Your task to perform on an android device: toggle location history Image 0: 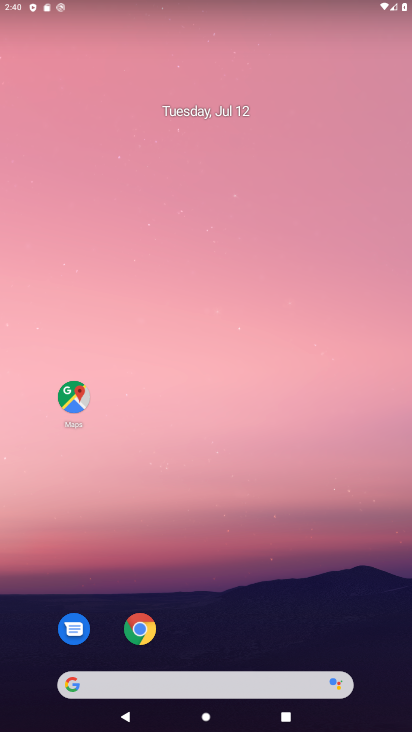
Step 0: drag from (190, 631) to (212, 97)
Your task to perform on an android device: toggle location history Image 1: 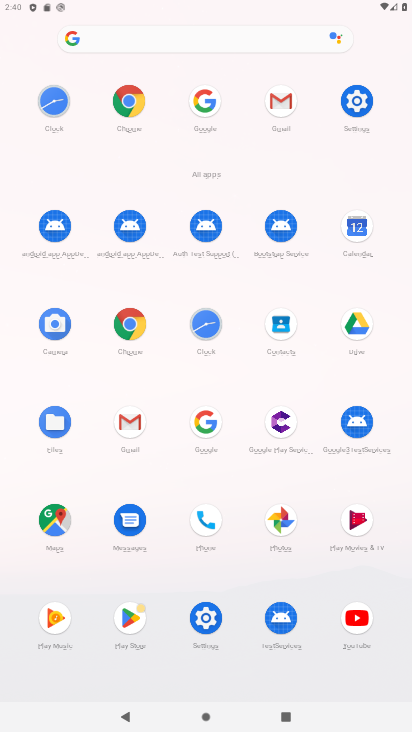
Step 1: click (359, 98)
Your task to perform on an android device: toggle location history Image 2: 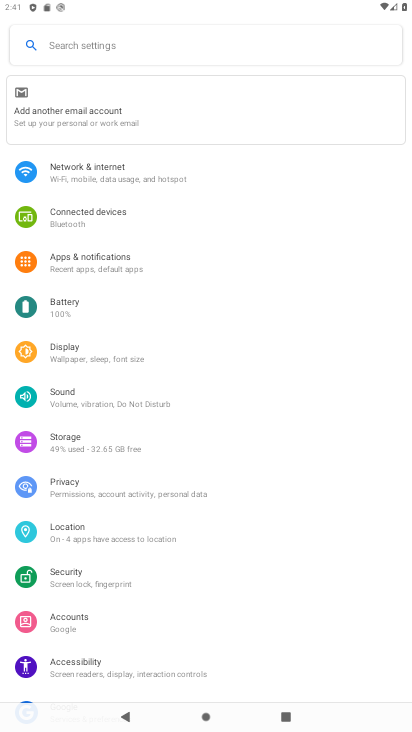
Step 2: click (108, 529)
Your task to perform on an android device: toggle location history Image 3: 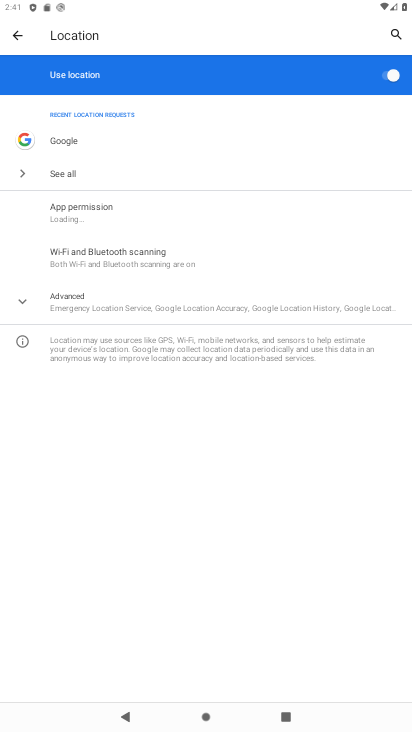
Step 3: click (87, 308)
Your task to perform on an android device: toggle location history Image 4: 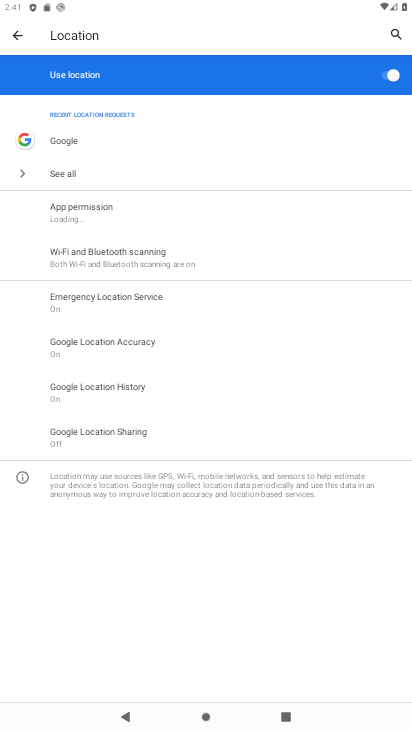
Step 4: click (126, 386)
Your task to perform on an android device: toggle location history Image 5: 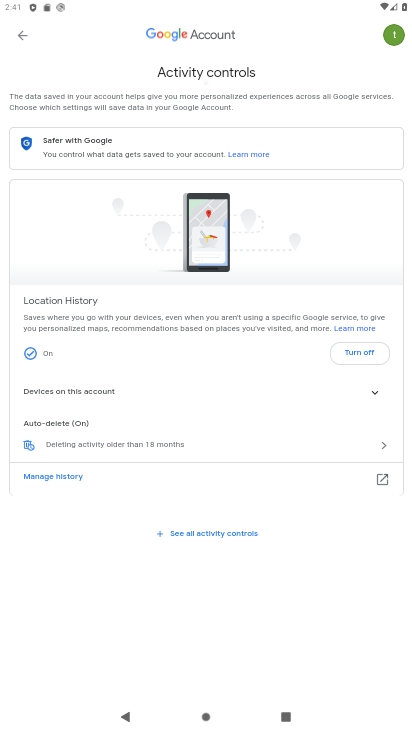
Step 5: click (369, 355)
Your task to perform on an android device: toggle location history Image 6: 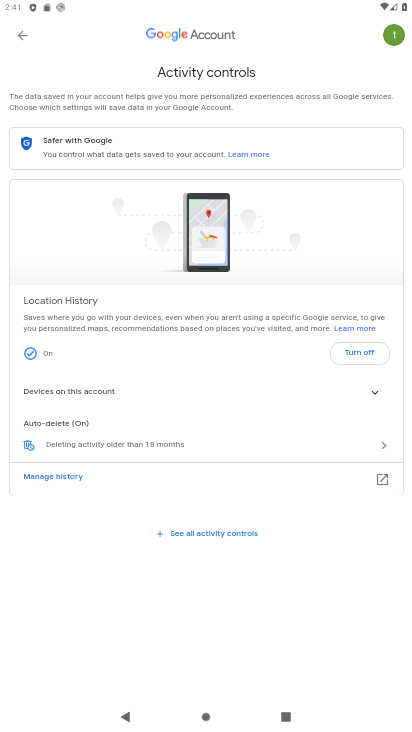
Step 6: click (361, 351)
Your task to perform on an android device: toggle location history Image 7: 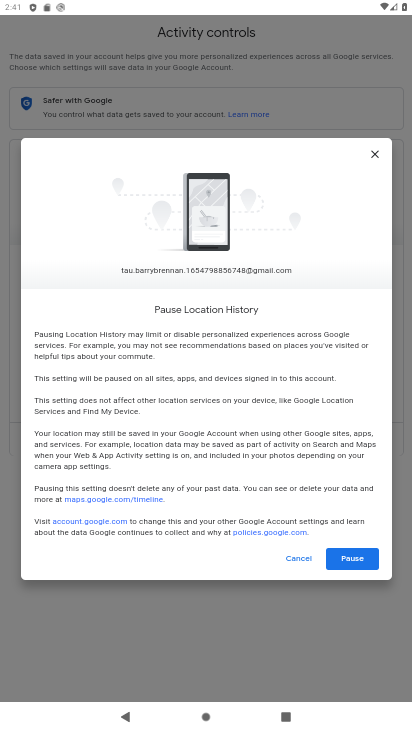
Step 7: click (355, 558)
Your task to perform on an android device: toggle location history Image 8: 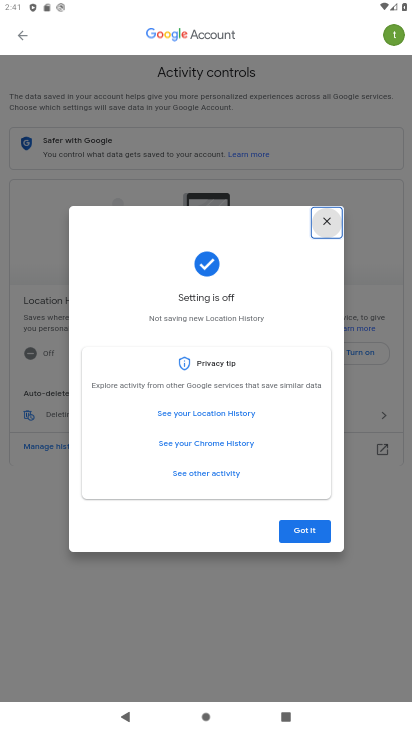
Step 8: click (289, 531)
Your task to perform on an android device: toggle location history Image 9: 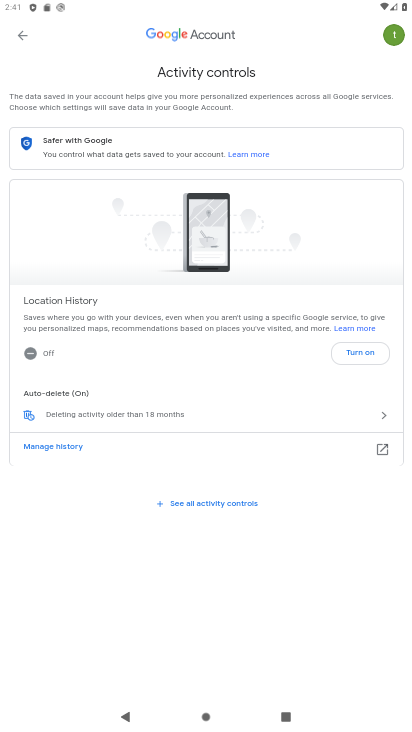
Step 9: task complete